Your task to perform on an android device: delete the emails in spam in the gmail app Image 0: 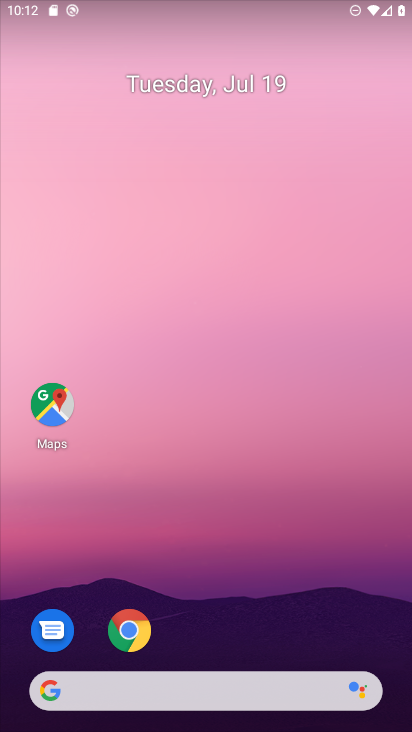
Step 0: drag from (14, 671) to (302, 160)
Your task to perform on an android device: delete the emails in spam in the gmail app Image 1: 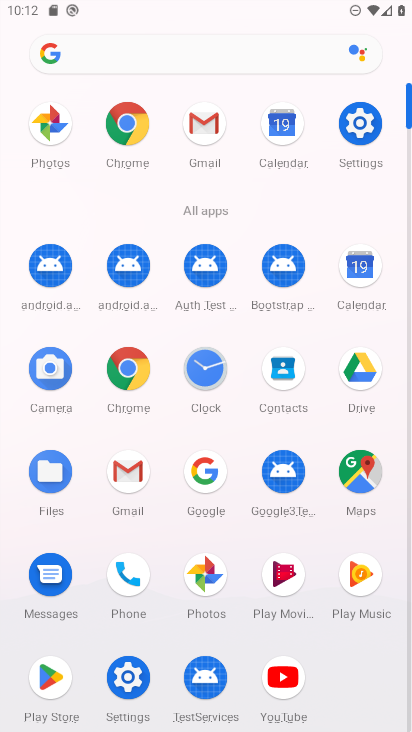
Step 1: click (137, 488)
Your task to perform on an android device: delete the emails in spam in the gmail app Image 2: 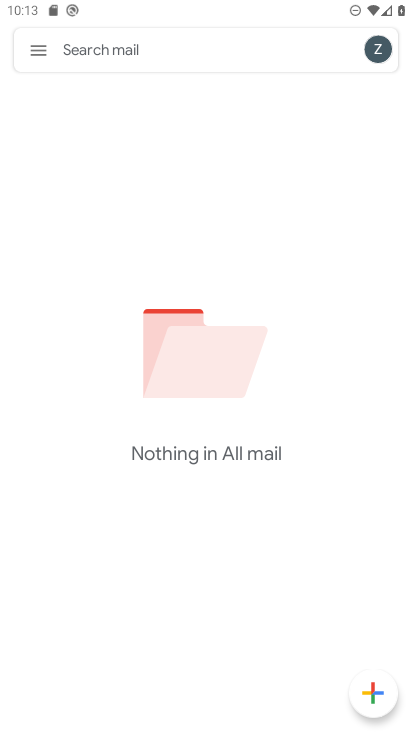
Step 2: click (37, 56)
Your task to perform on an android device: delete the emails in spam in the gmail app Image 3: 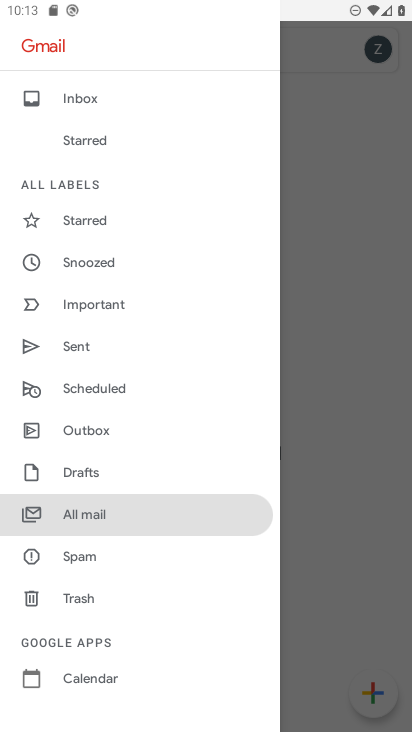
Step 3: click (65, 552)
Your task to perform on an android device: delete the emails in spam in the gmail app Image 4: 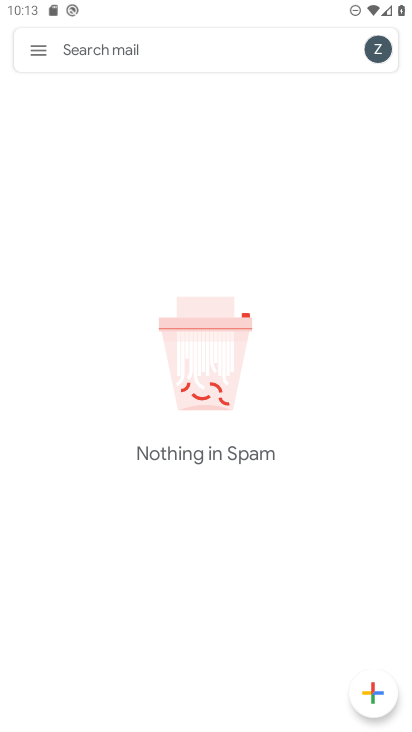
Step 4: task complete